Your task to perform on an android device: turn on translation in the chrome app Image 0: 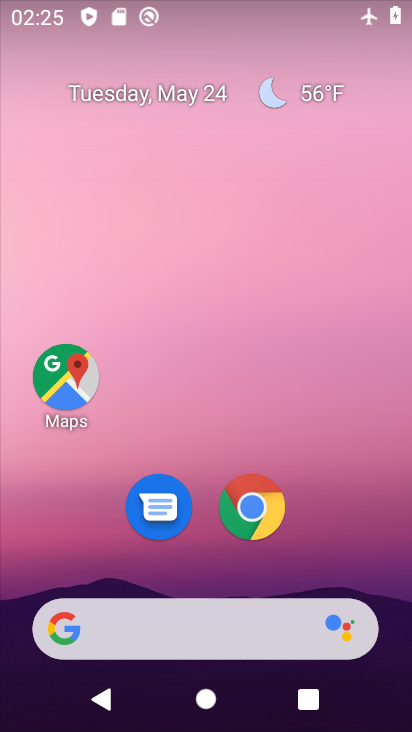
Step 0: click (243, 513)
Your task to perform on an android device: turn on translation in the chrome app Image 1: 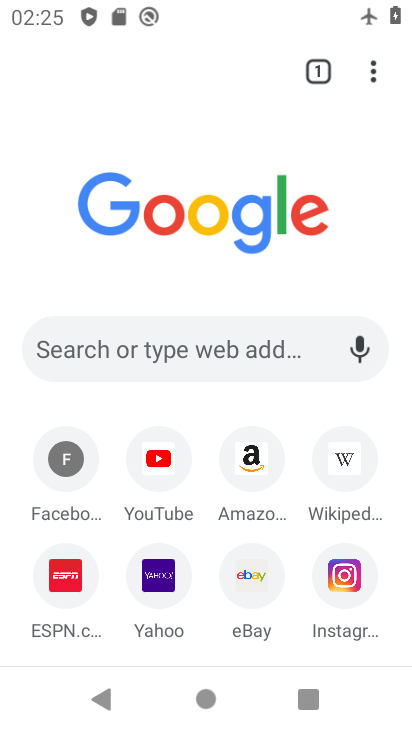
Step 1: drag from (374, 83) to (266, 515)
Your task to perform on an android device: turn on translation in the chrome app Image 2: 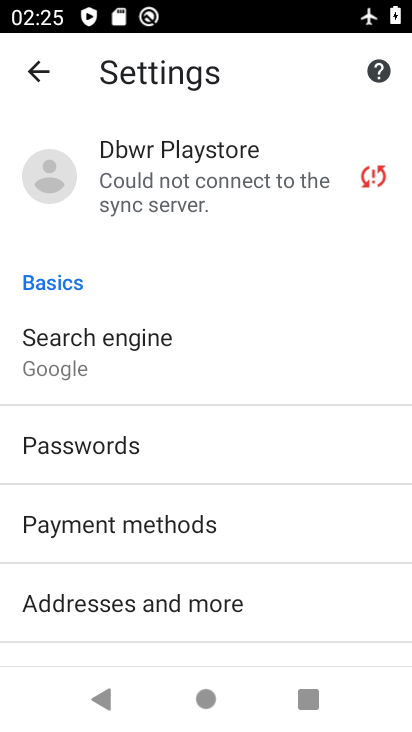
Step 2: drag from (112, 609) to (219, 74)
Your task to perform on an android device: turn on translation in the chrome app Image 3: 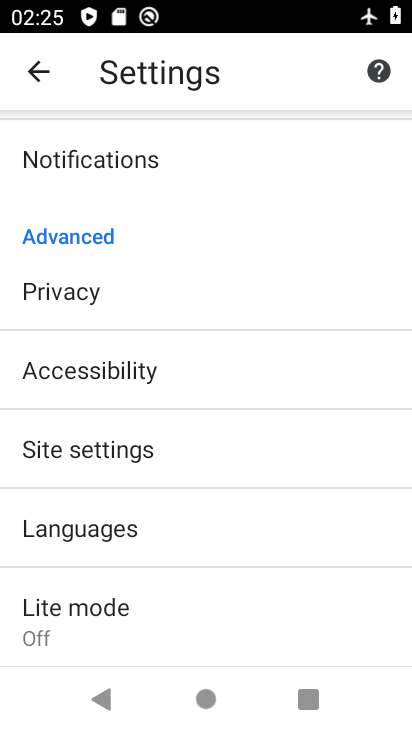
Step 3: click (135, 552)
Your task to perform on an android device: turn on translation in the chrome app Image 4: 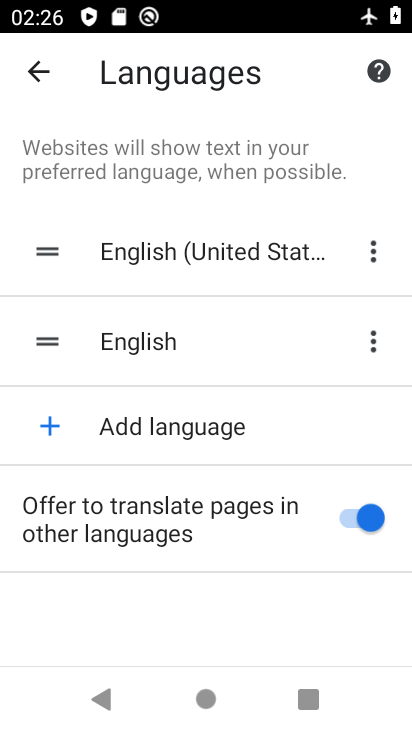
Step 4: task complete